Your task to perform on an android device: Search for seafood restaurants on Google Maps Image 0: 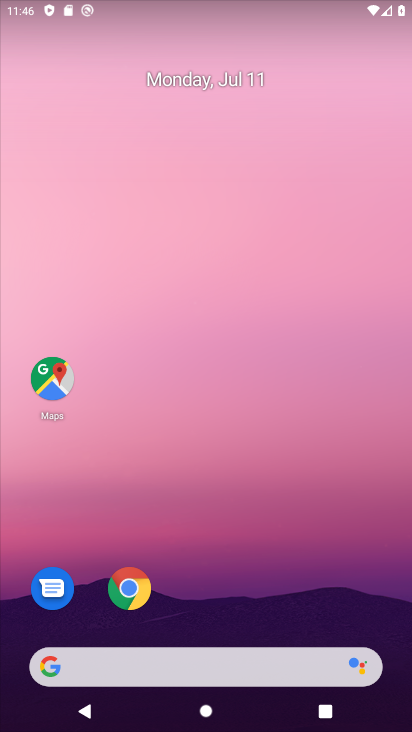
Step 0: drag from (361, 624) to (237, 69)
Your task to perform on an android device: Search for seafood restaurants on Google Maps Image 1: 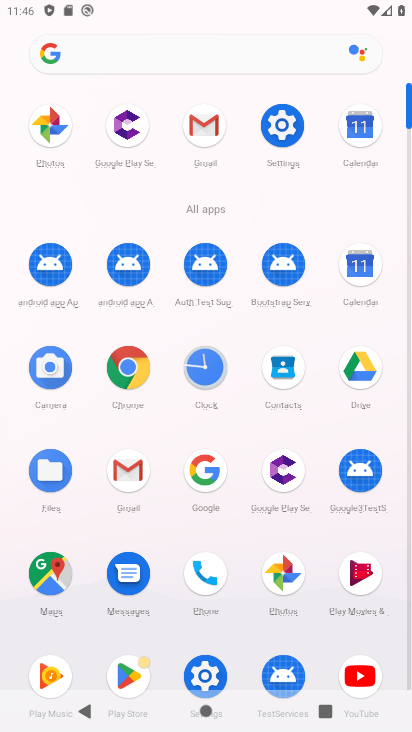
Step 1: click (45, 580)
Your task to perform on an android device: Search for seafood restaurants on Google Maps Image 2: 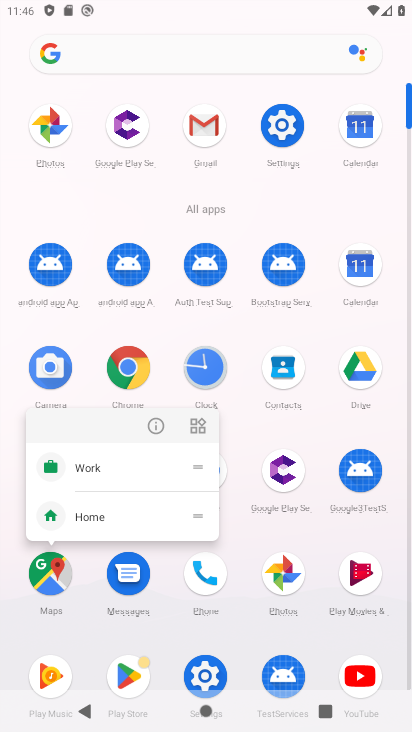
Step 2: click (47, 573)
Your task to perform on an android device: Search for seafood restaurants on Google Maps Image 3: 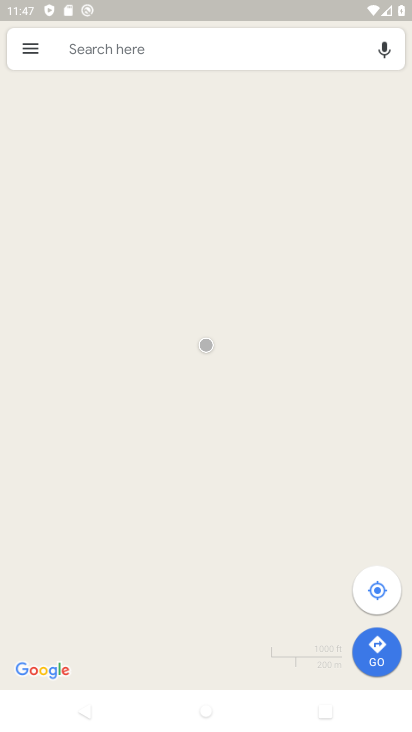
Step 3: click (261, 52)
Your task to perform on an android device: Search for seafood restaurants on Google Maps Image 4: 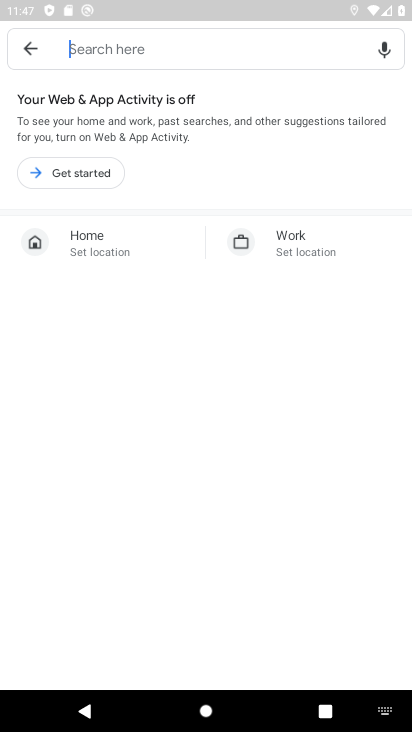
Step 4: type "seafood restaurants"
Your task to perform on an android device: Search for seafood restaurants on Google Maps Image 5: 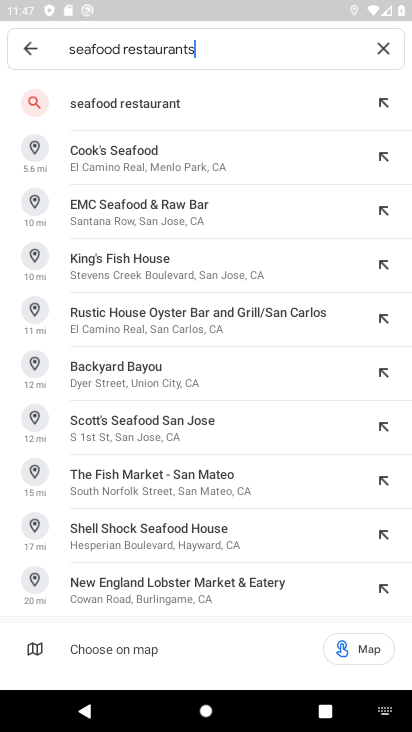
Step 5: press enter
Your task to perform on an android device: Search for seafood restaurants on Google Maps Image 6: 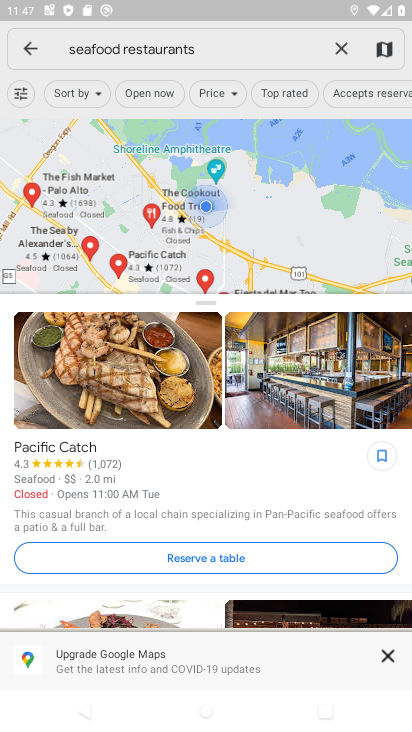
Step 6: task complete